Your task to perform on an android device: Go to CNN.com Image 0: 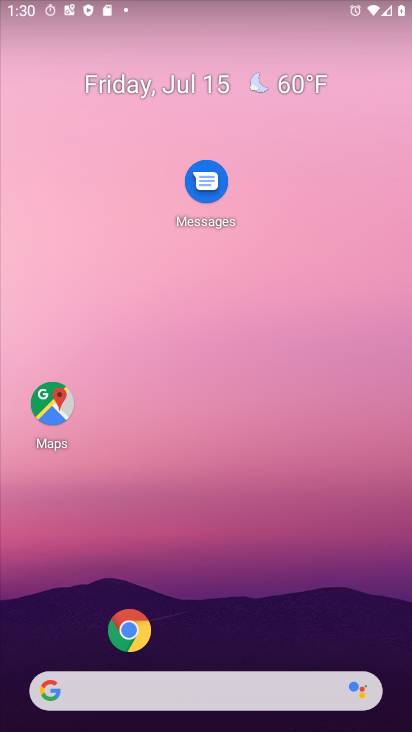
Step 0: click (82, 694)
Your task to perform on an android device: Go to CNN.com Image 1: 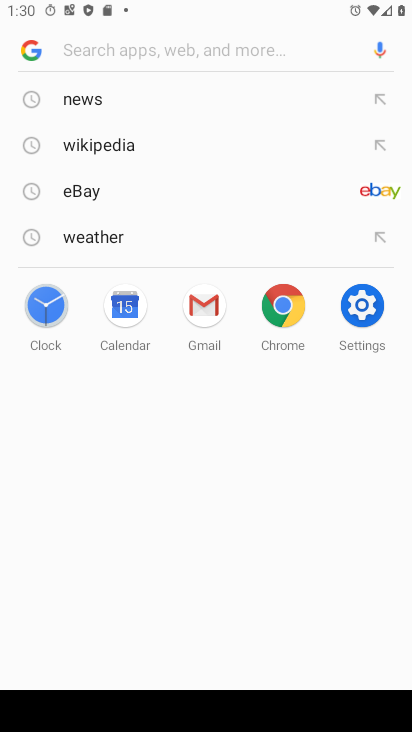
Step 1: type "CNN.com"
Your task to perform on an android device: Go to CNN.com Image 2: 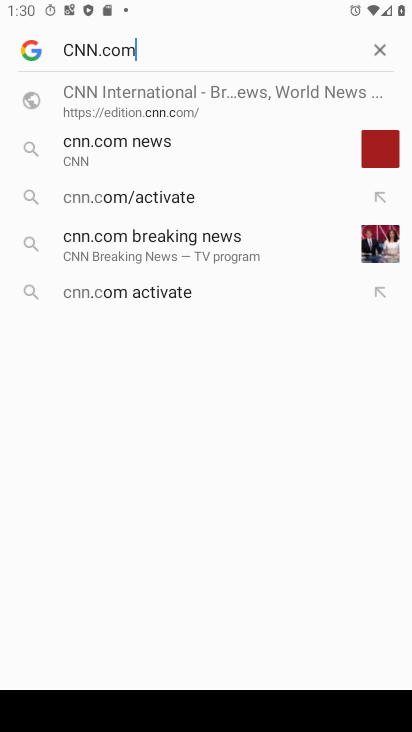
Step 2: type ""
Your task to perform on an android device: Go to CNN.com Image 3: 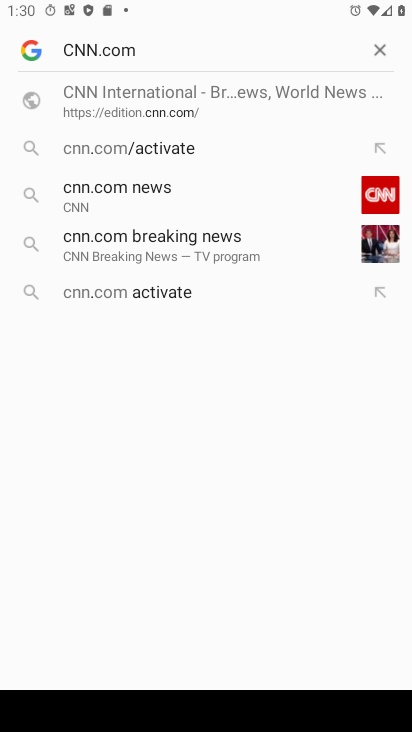
Step 3: type ""
Your task to perform on an android device: Go to CNN.com Image 4: 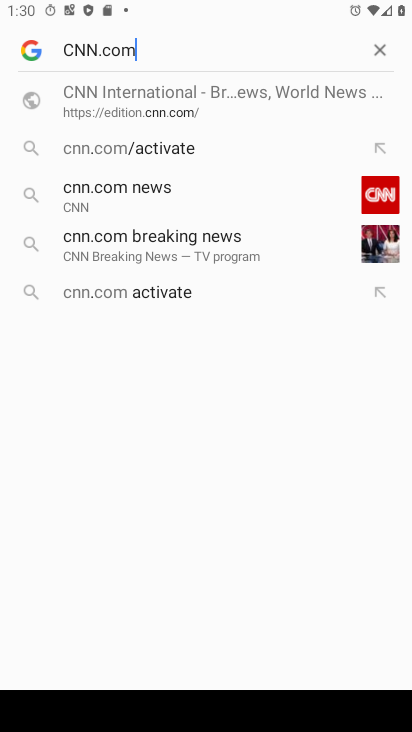
Step 4: type ""
Your task to perform on an android device: Go to CNN.com Image 5: 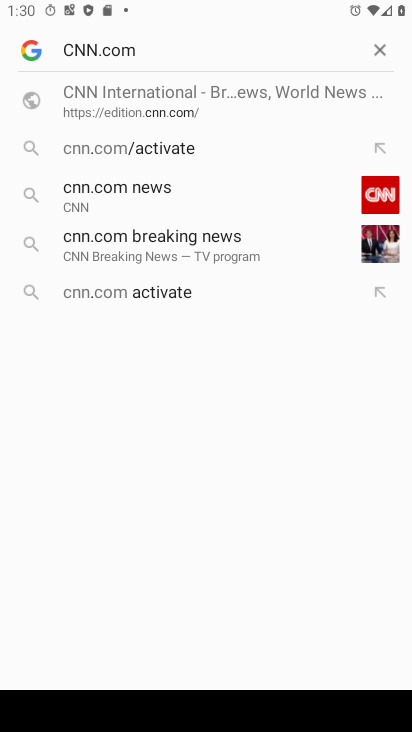
Step 5: task complete